Your task to perform on an android device: star an email in the gmail app Image 0: 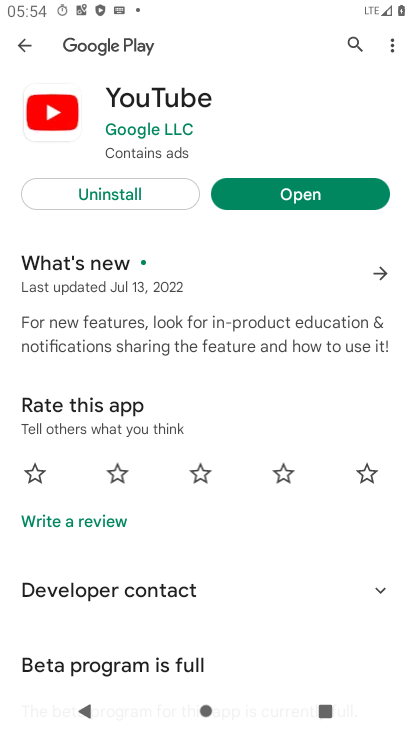
Step 0: press home button
Your task to perform on an android device: star an email in the gmail app Image 1: 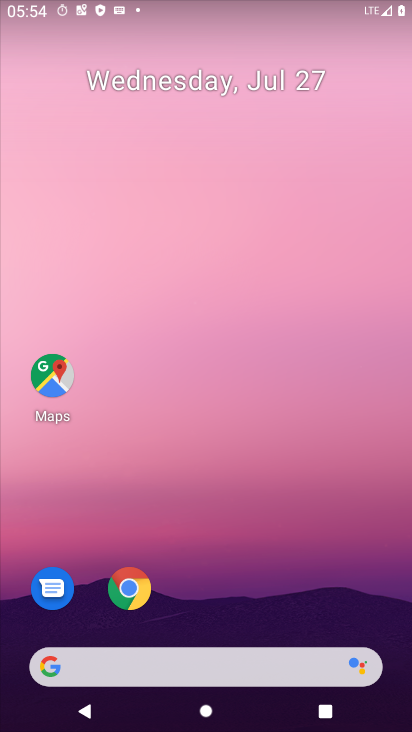
Step 1: drag from (337, 646) to (323, 3)
Your task to perform on an android device: star an email in the gmail app Image 2: 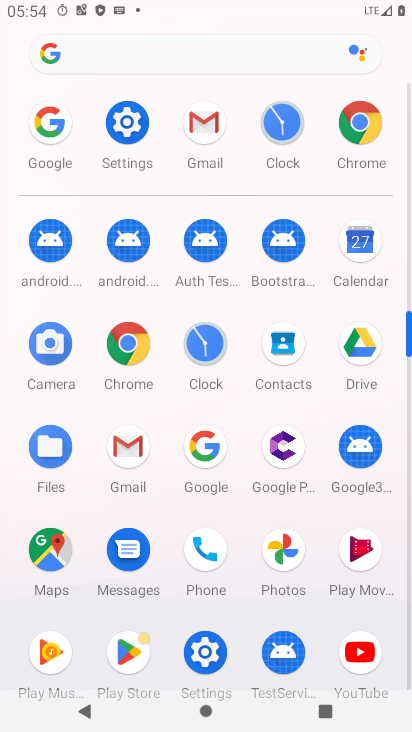
Step 2: drag from (163, 657) to (189, 382)
Your task to perform on an android device: star an email in the gmail app Image 3: 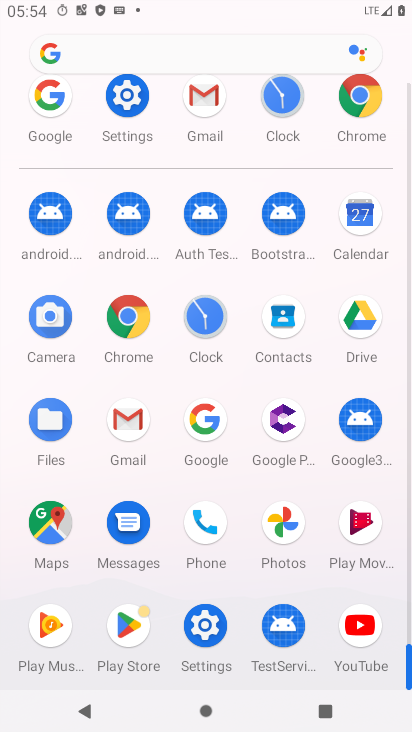
Step 3: click (124, 411)
Your task to perform on an android device: star an email in the gmail app Image 4: 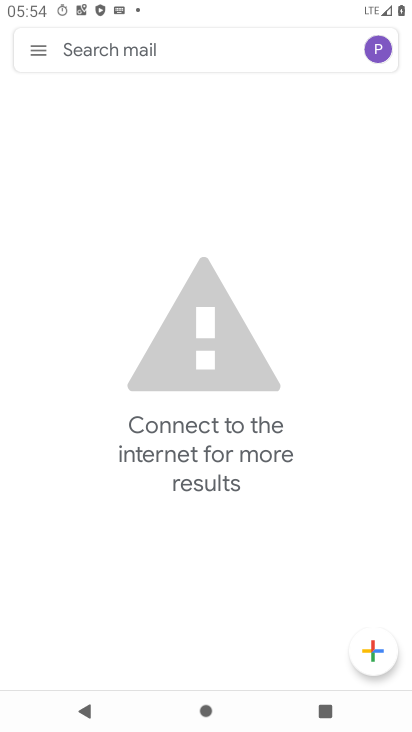
Step 4: click (33, 42)
Your task to perform on an android device: star an email in the gmail app Image 5: 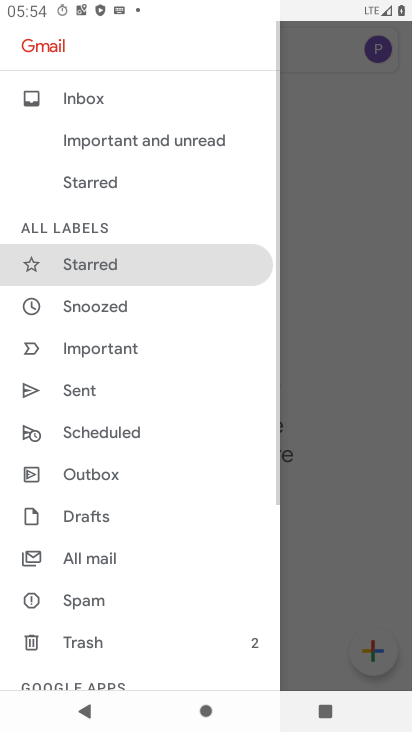
Step 5: click (112, 188)
Your task to perform on an android device: star an email in the gmail app Image 6: 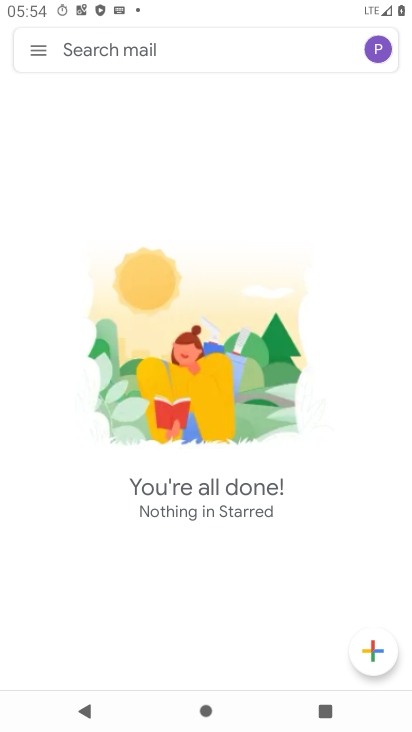
Step 6: task complete